Your task to perform on an android device: visit the assistant section in the google photos Image 0: 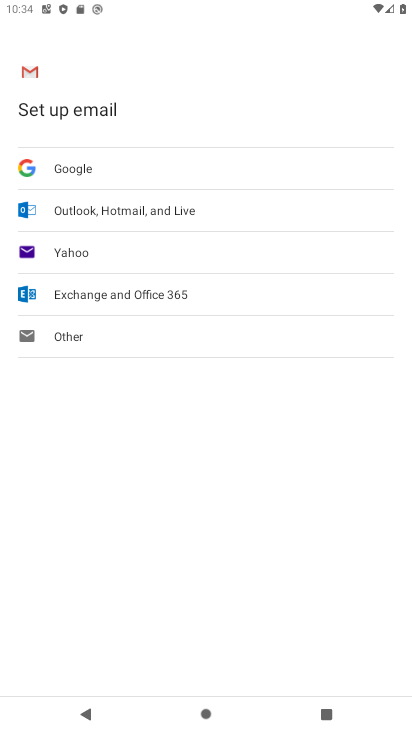
Step 0: press home button
Your task to perform on an android device: visit the assistant section in the google photos Image 1: 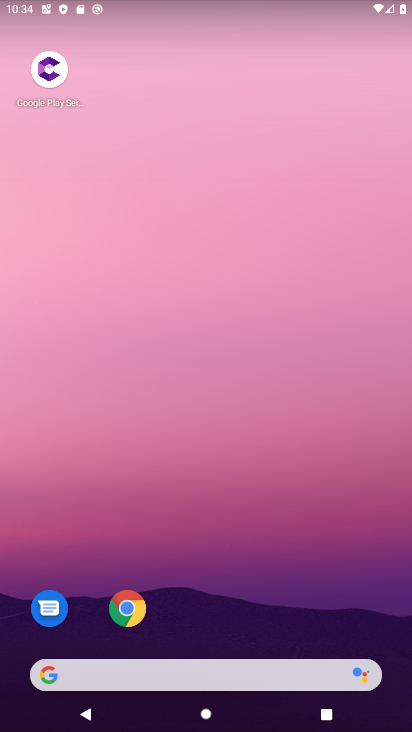
Step 1: drag from (276, 610) to (300, 103)
Your task to perform on an android device: visit the assistant section in the google photos Image 2: 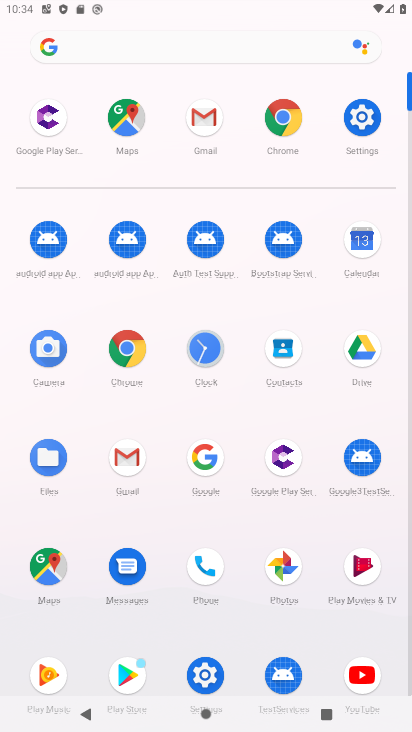
Step 2: click (270, 560)
Your task to perform on an android device: visit the assistant section in the google photos Image 3: 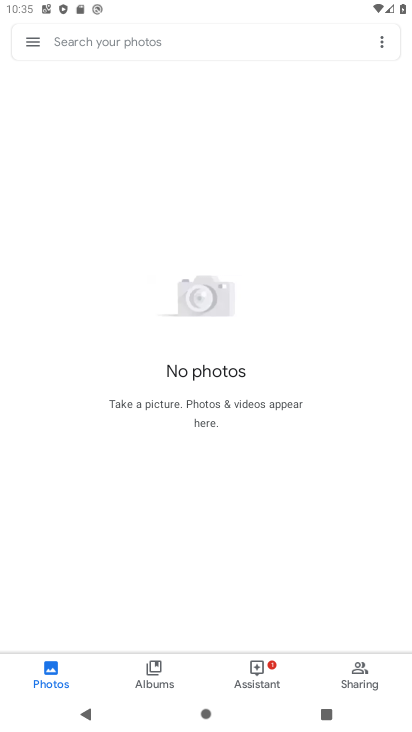
Step 3: click (253, 673)
Your task to perform on an android device: visit the assistant section in the google photos Image 4: 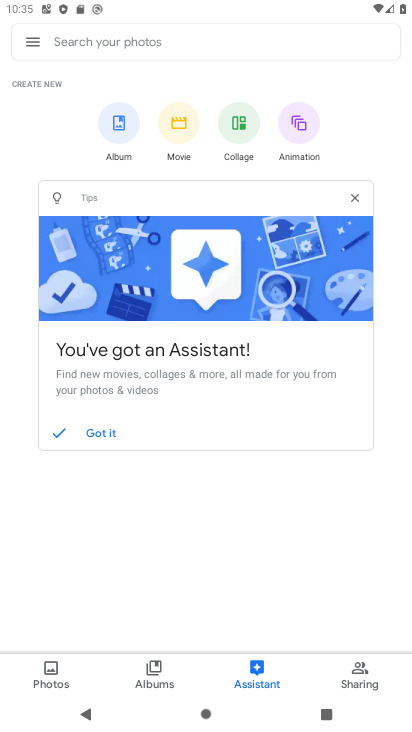
Step 4: task complete